Your task to perform on an android device: check google app version Image 0: 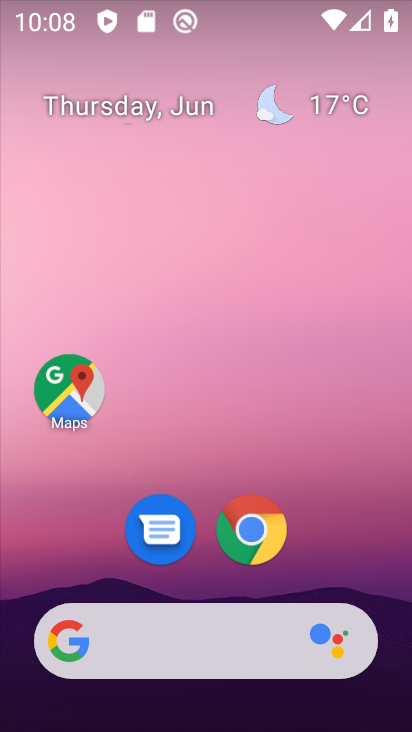
Step 0: drag from (321, 585) to (304, 3)
Your task to perform on an android device: check google app version Image 1: 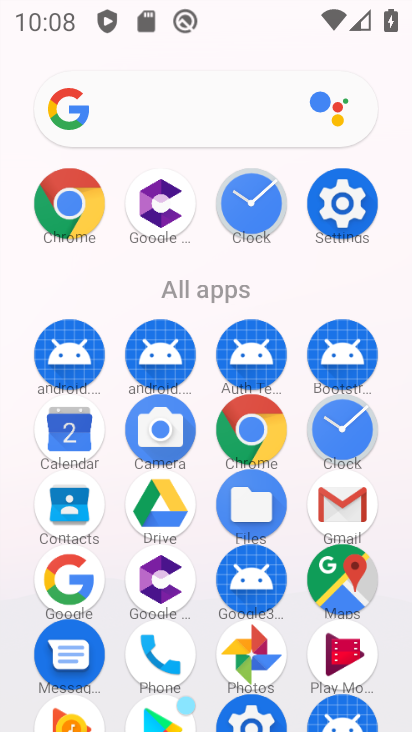
Step 1: click (77, 581)
Your task to perform on an android device: check google app version Image 2: 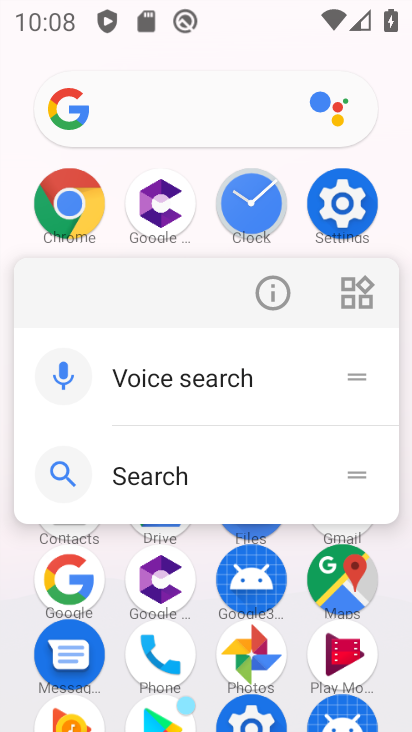
Step 2: click (65, 555)
Your task to perform on an android device: check google app version Image 3: 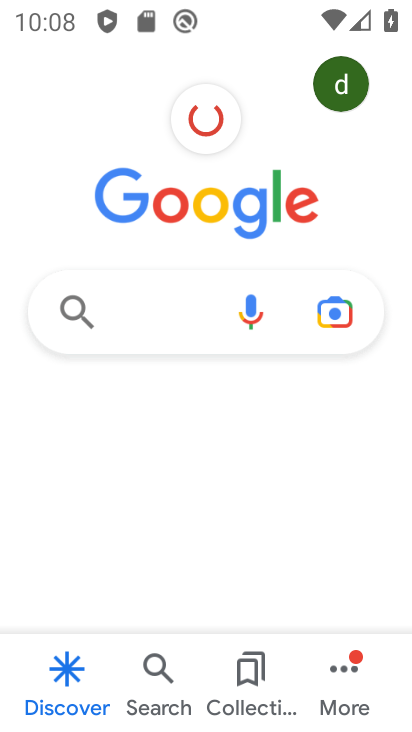
Step 3: click (337, 691)
Your task to perform on an android device: check google app version Image 4: 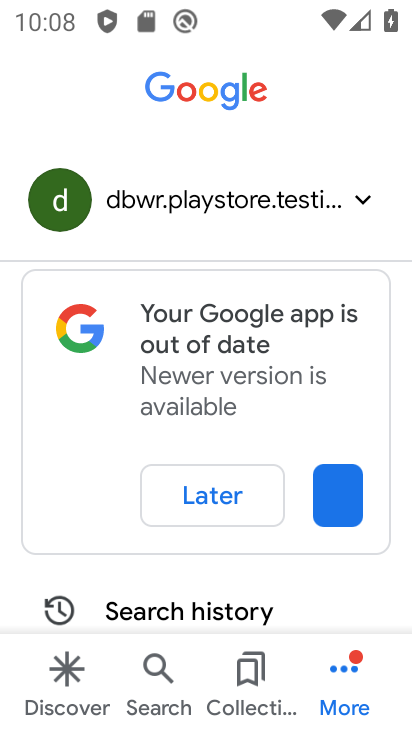
Step 4: drag from (313, 596) to (313, 5)
Your task to perform on an android device: check google app version Image 5: 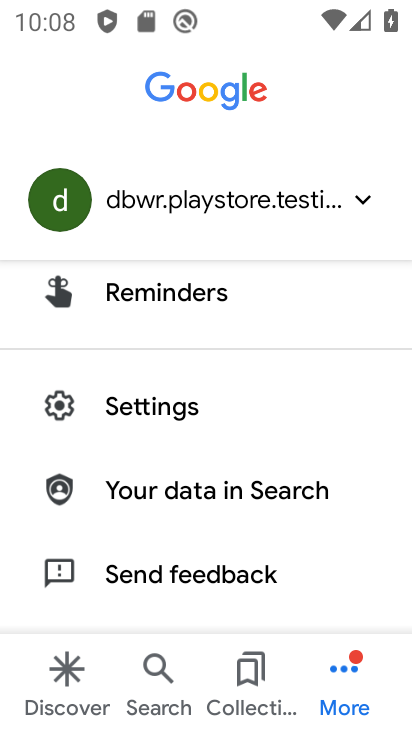
Step 5: click (247, 404)
Your task to perform on an android device: check google app version Image 6: 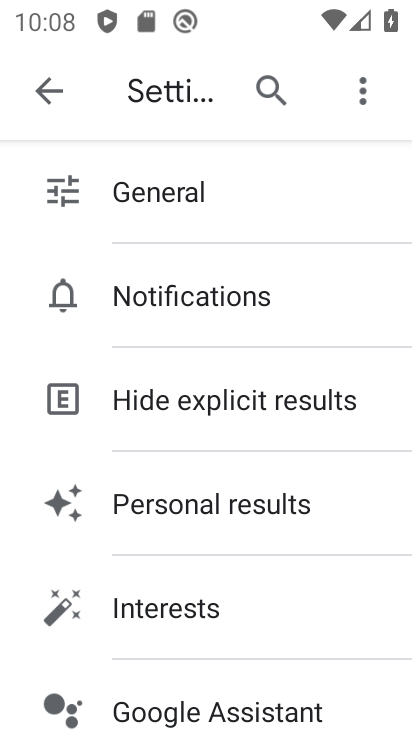
Step 6: drag from (242, 591) to (213, 116)
Your task to perform on an android device: check google app version Image 7: 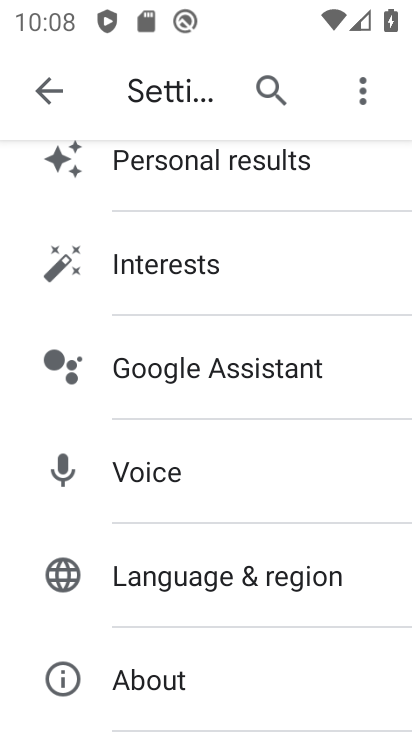
Step 7: click (218, 696)
Your task to perform on an android device: check google app version Image 8: 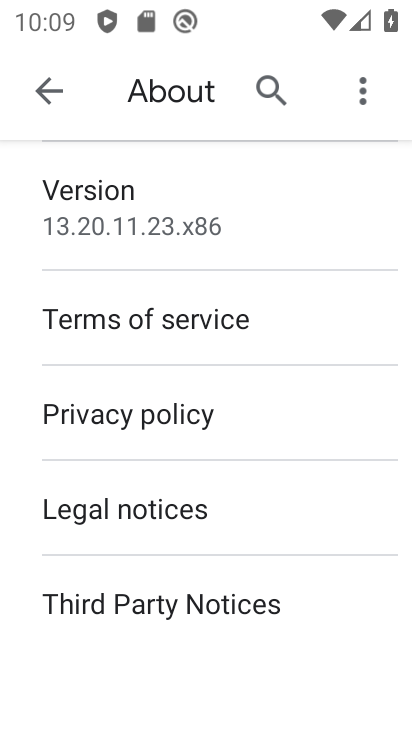
Step 8: click (79, 203)
Your task to perform on an android device: check google app version Image 9: 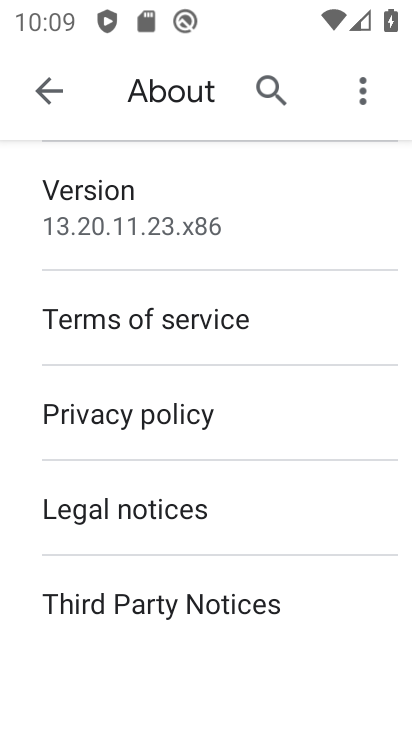
Step 9: task complete